Your task to perform on an android device: Open settings on Google Maps Image 0: 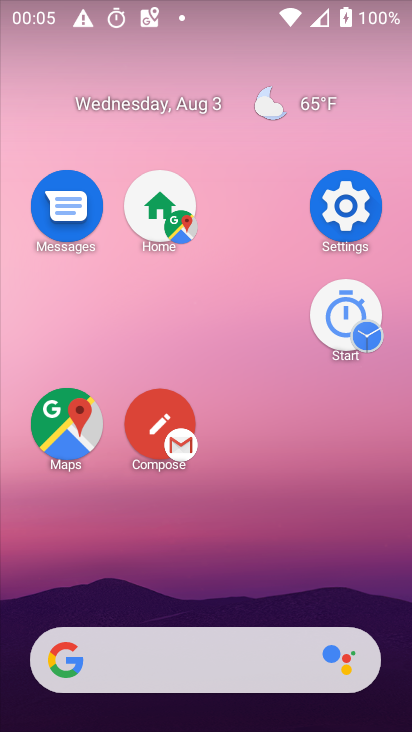
Step 0: drag from (250, 568) to (139, 132)
Your task to perform on an android device: Open settings on Google Maps Image 1: 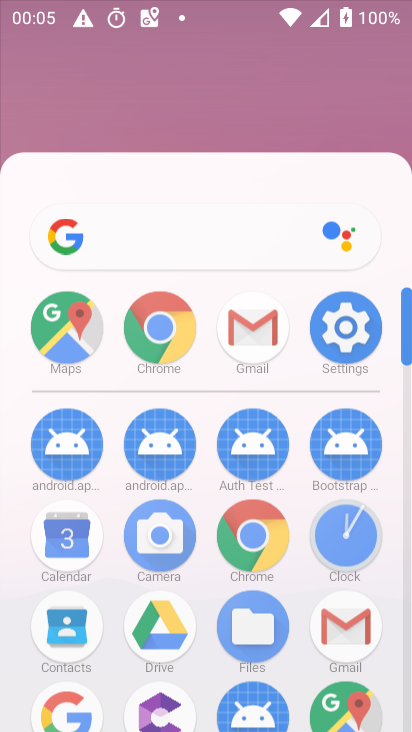
Step 1: drag from (247, 538) to (185, 190)
Your task to perform on an android device: Open settings on Google Maps Image 2: 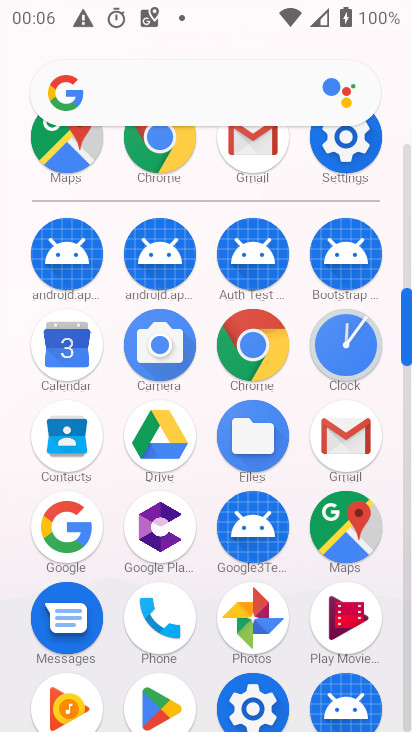
Step 2: click (349, 525)
Your task to perform on an android device: Open settings on Google Maps Image 3: 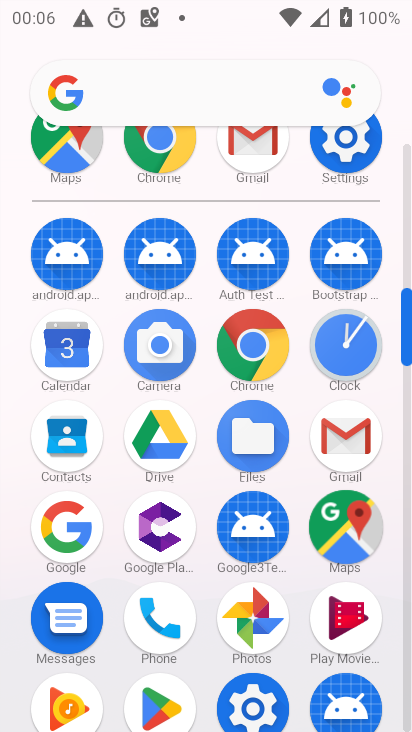
Step 3: click (349, 523)
Your task to perform on an android device: Open settings on Google Maps Image 4: 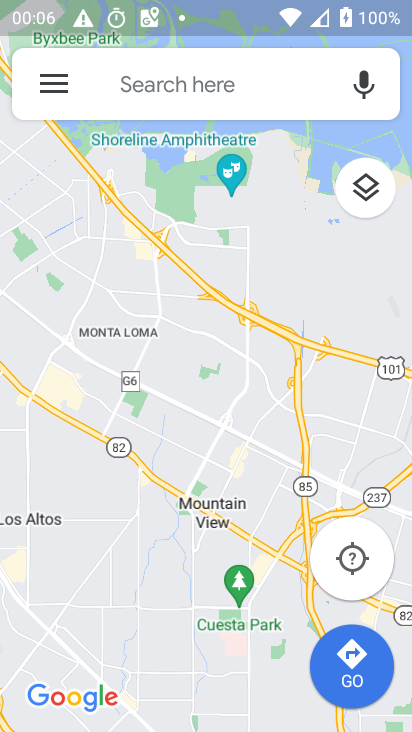
Step 4: click (57, 82)
Your task to perform on an android device: Open settings on Google Maps Image 5: 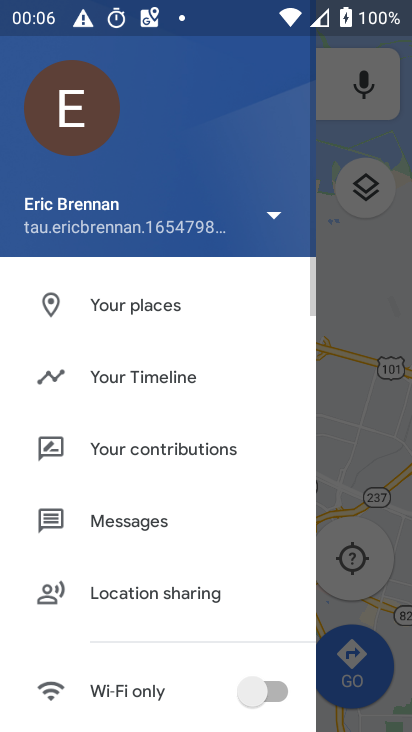
Step 5: drag from (131, 655) to (82, 163)
Your task to perform on an android device: Open settings on Google Maps Image 6: 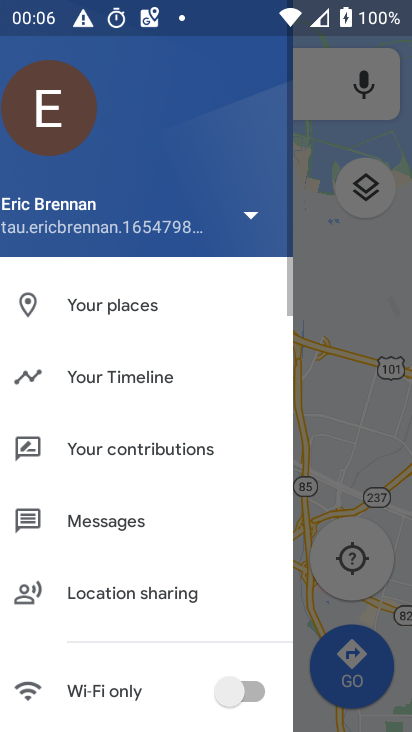
Step 6: drag from (194, 635) to (161, 231)
Your task to perform on an android device: Open settings on Google Maps Image 7: 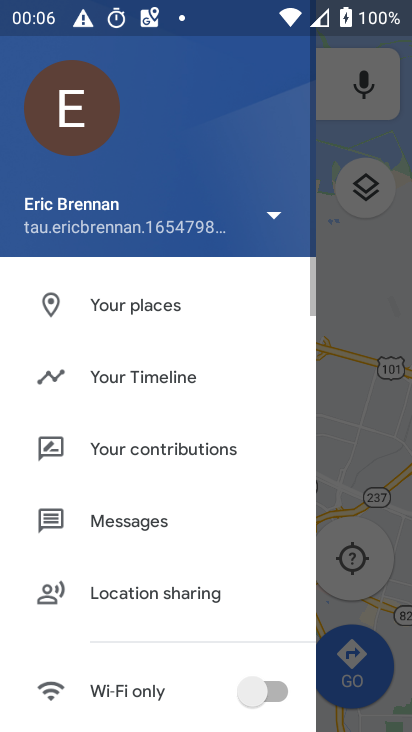
Step 7: drag from (92, 229) to (92, 178)
Your task to perform on an android device: Open settings on Google Maps Image 8: 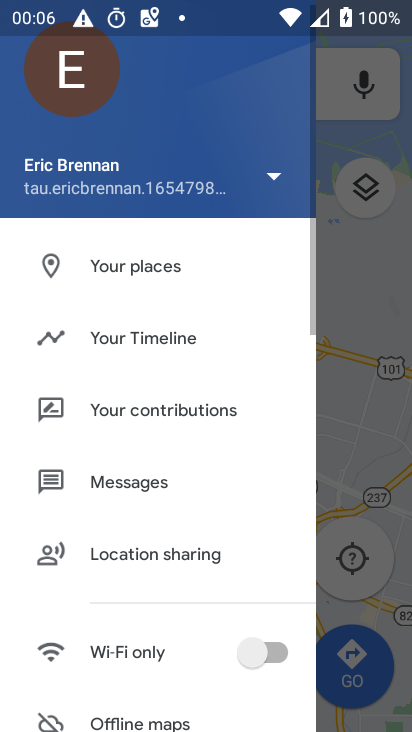
Step 8: drag from (122, 451) to (160, 161)
Your task to perform on an android device: Open settings on Google Maps Image 9: 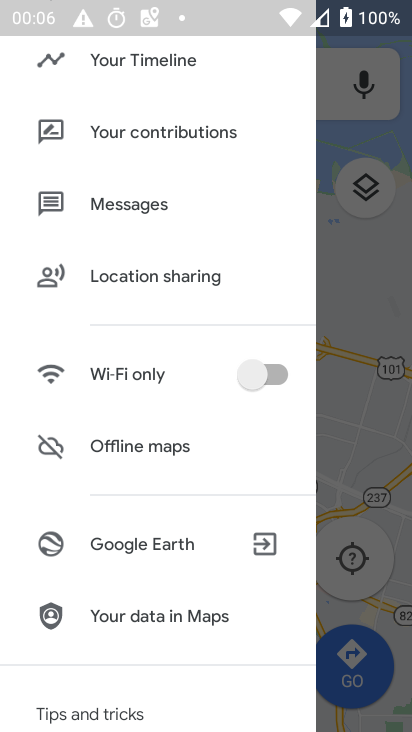
Step 9: drag from (158, 481) to (145, 176)
Your task to perform on an android device: Open settings on Google Maps Image 10: 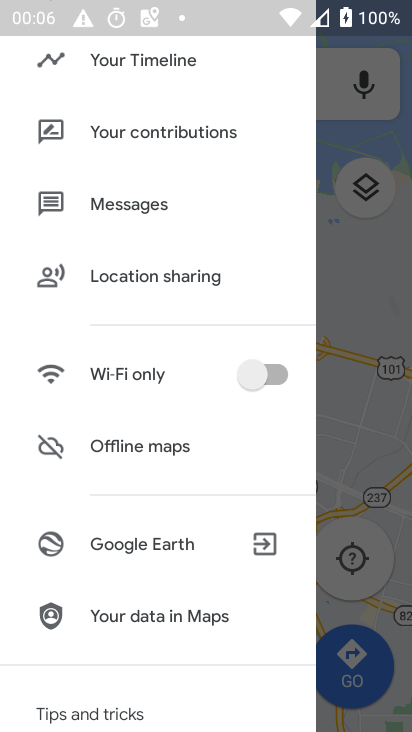
Step 10: drag from (148, 483) to (114, 190)
Your task to perform on an android device: Open settings on Google Maps Image 11: 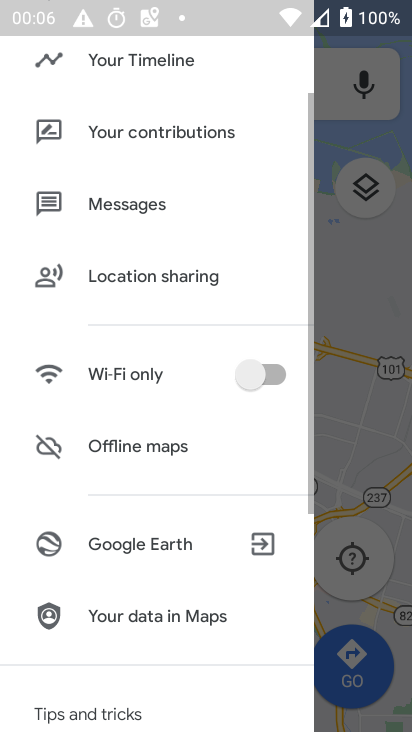
Step 11: drag from (134, 502) to (80, 299)
Your task to perform on an android device: Open settings on Google Maps Image 12: 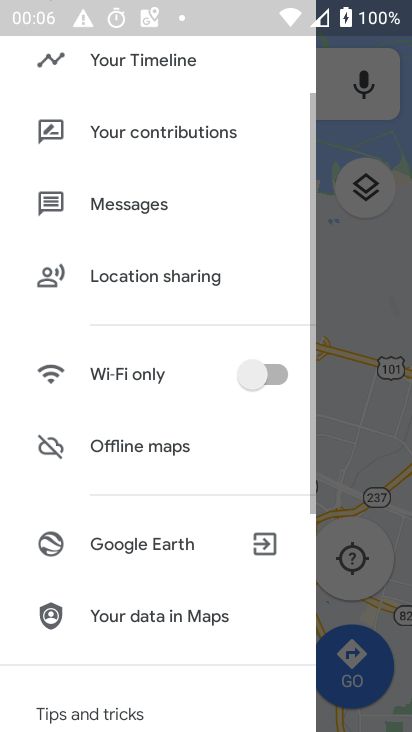
Step 12: drag from (108, 380) to (115, 263)
Your task to perform on an android device: Open settings on Google Maps Image 13: 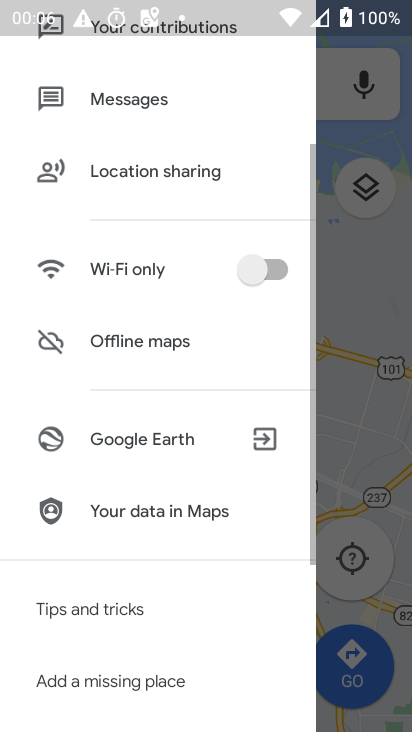
Step 13: drag from (155, 556) to (152, 238)
Your task to perform on an android device: Open settings on Google Maps Image 14: 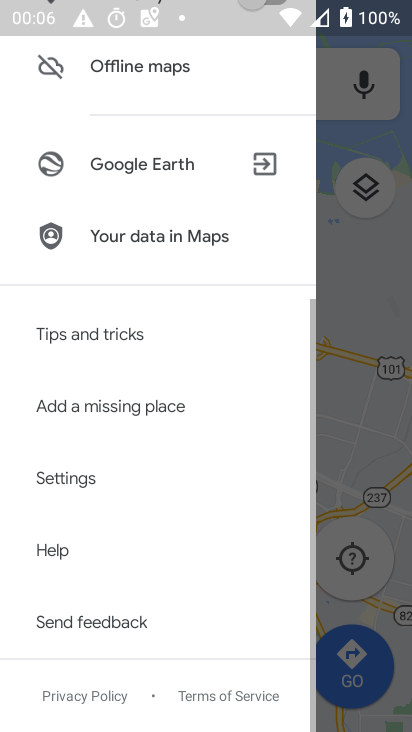
Step 14: drag from (116, 703) to (177, 389)
Your task to perform on an android device: Open settings on Google Maps Image 15: 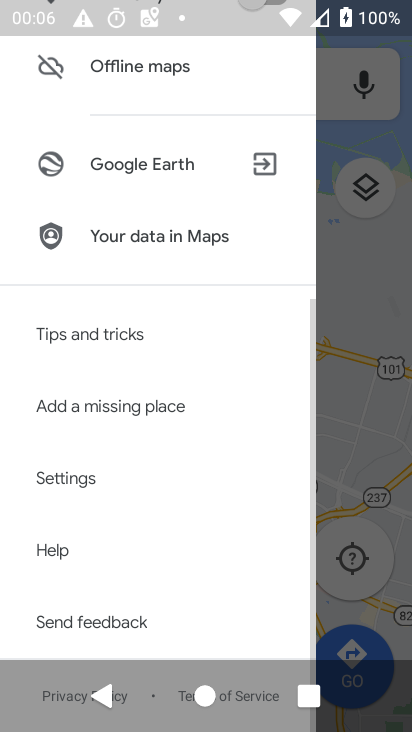
Step 15: click (41, 469)
Your task to perform on an android device: Open settings on Google Maps Image 16: 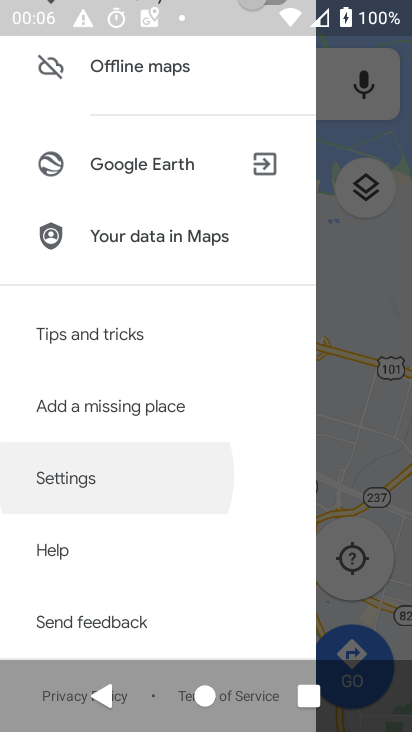
Step 16: click (46, 465)
Your task to perform on an android device: Open settings on Google Maps Image 17: 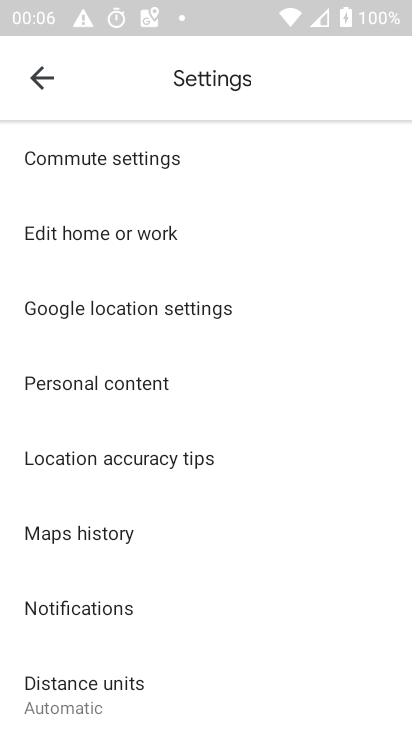
Step 17: task complete